Your task to perform on an android device: add a contact in the contacts app Image 0: 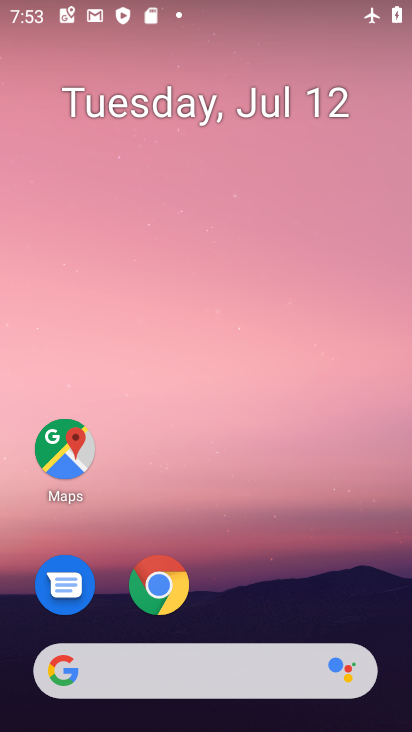
Step 0: drag from (269, 584) to (278, 65)
Your task to perform on an android device: add a contact in the contacts app Image 1: 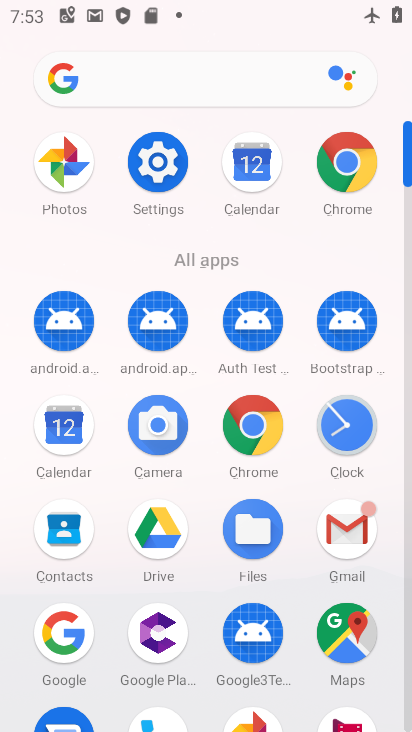
Step 1: click (73, 526)
Your task to perform on an android device: add a contact in the contacts app Image 2: 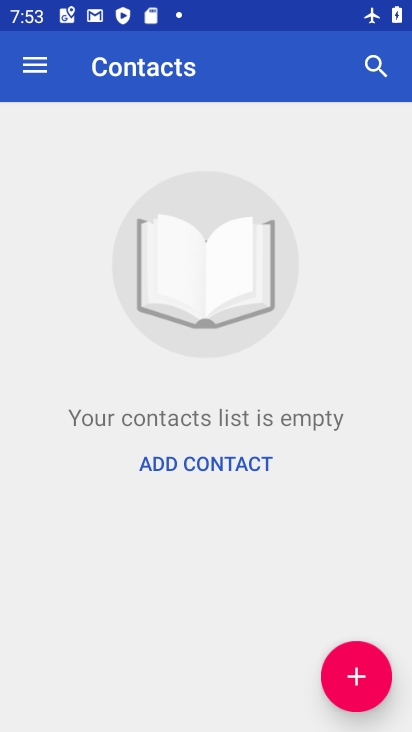
Step 2: click (358, 676)
Your task to perform on an android device: add a contact in the contacts app Image 3: 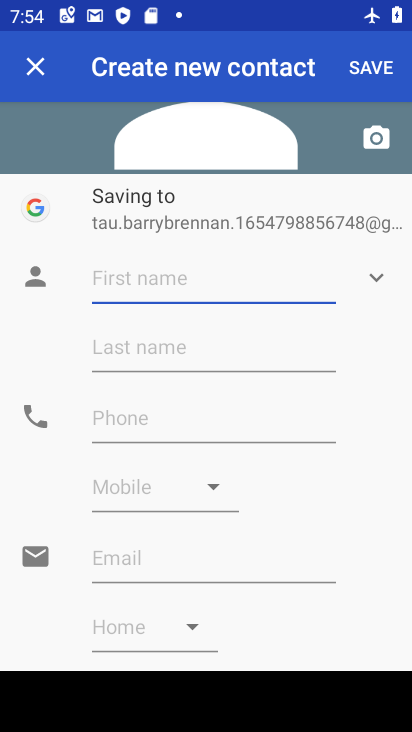
Step 3: type "Jai Shri Ram"
Your task to perform on an android device: add a contact in the contacts app Image 4: 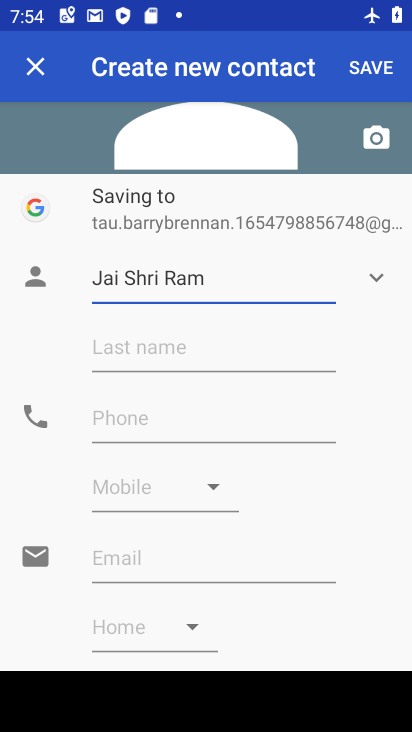
Step 4: click (159, 429)
Your task to perform on an android device: add a contact in the contacts app Image 5: 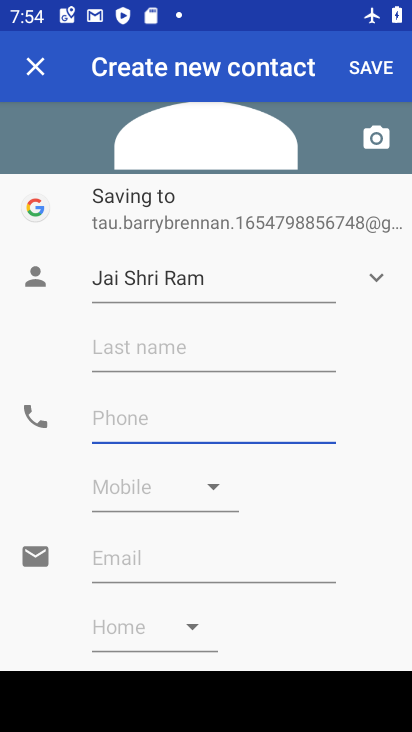
Step 5: type "999777555333"
Your task to perform on an android device: add a contact in the contacts app Image 6: 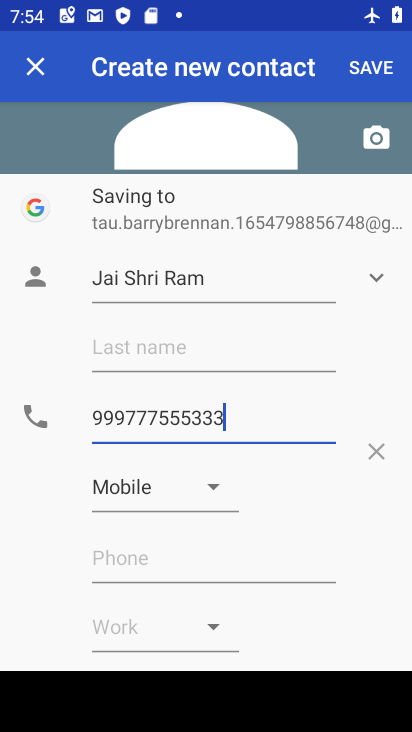
Step 6: click (373, 69)
Your task to perform on an android device: add a contact in the contacts app Image 7: 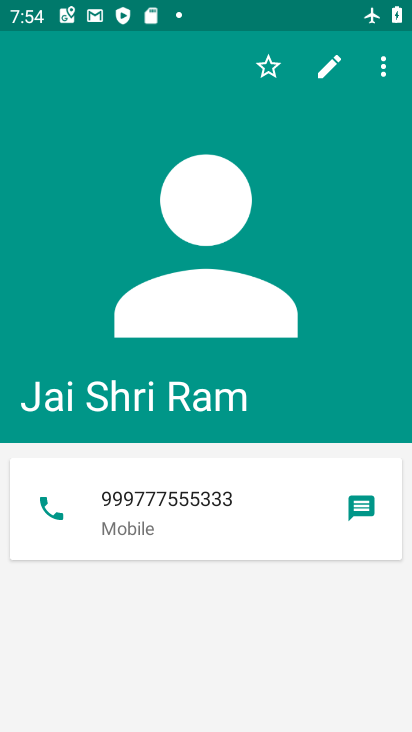
Step 7: task complete